Your task to perform on an android device: Open Google Maps Image 0: 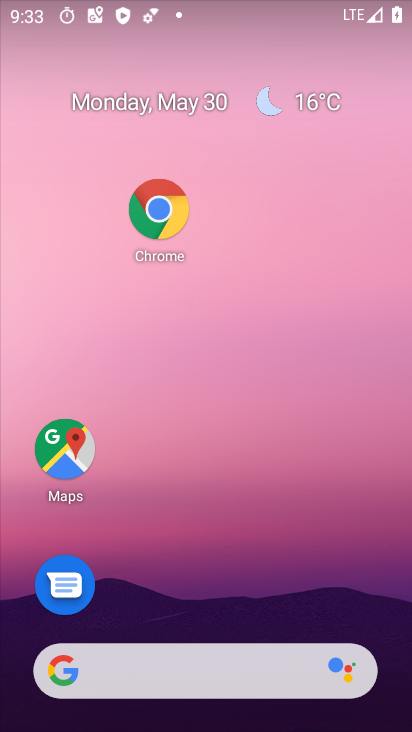
Step 0: drag from (187, 608) to (295, 71)
Your task to perform on an android device: Open Google Maps Image 1: 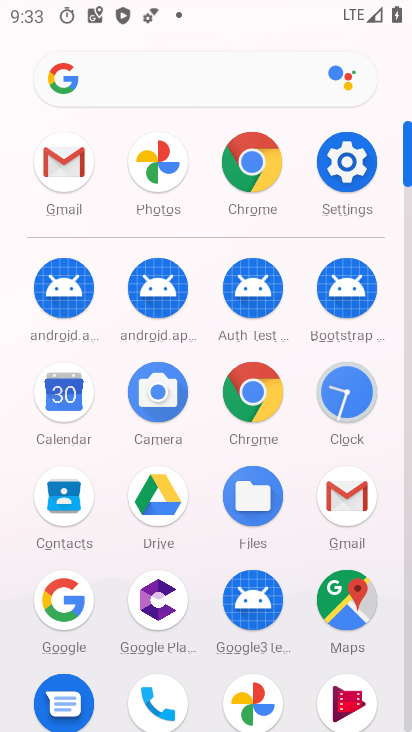
Step 1: click (348, 601)
Your task to perform on an android device: Open Google Maps Image 2: 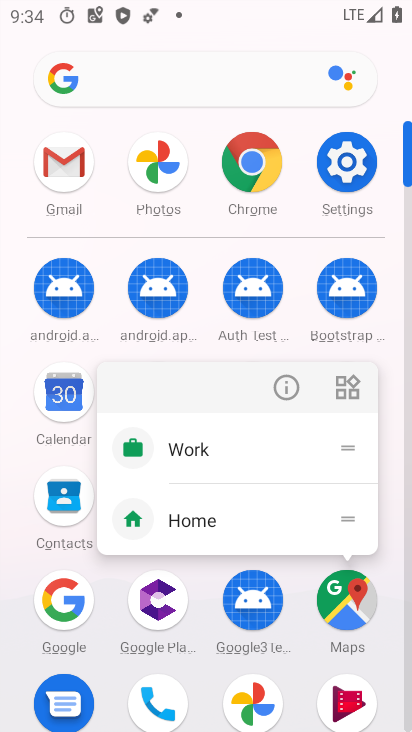
Step 2: click (282, 379)
Your task to perform on an android device: Open Google Maps Image 3: 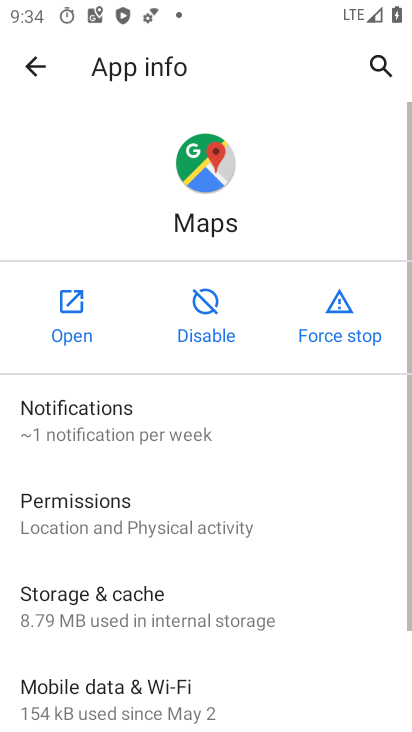
Step 3: click (39, 251)
Your task to perform on an android device: Open Google Maps Image 4: 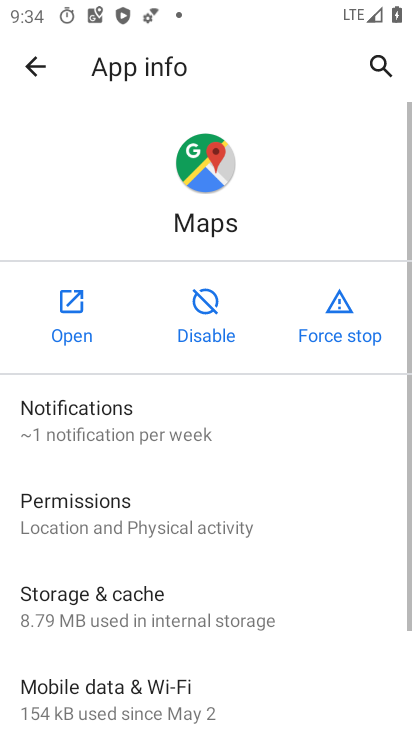
Step 4: click (69, 289)
Your task to perform on an android device: Open Google Maps Image 5: 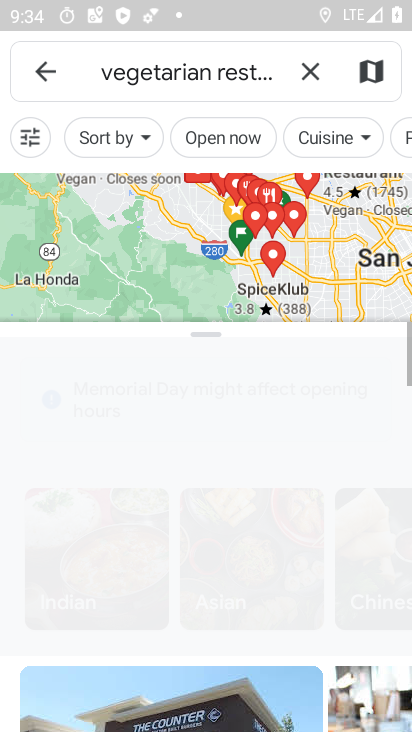
Step 5: task complete